Your task to perform on an android device: check out phone information Image 0: 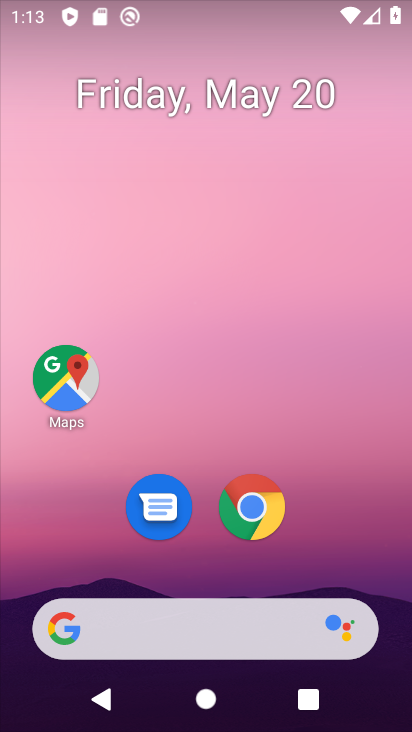
Step 0: drag from (201, 725) to (201, 52)
Your task to perform on an android device: check out phone information Image 1: 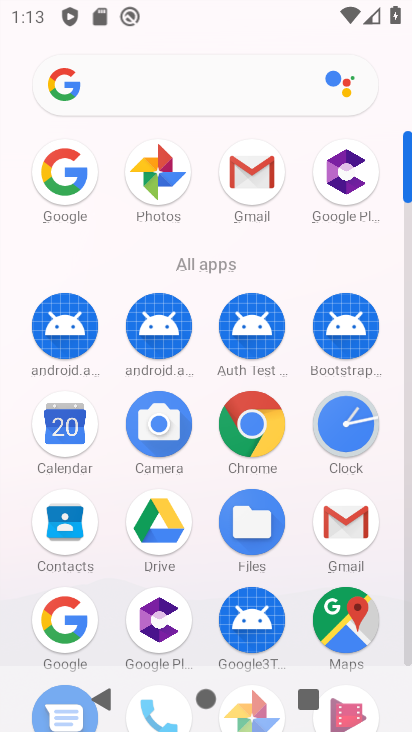
Step 1: drag from (189, 651) to (196, 201)
Your task to perform on an android device: check out phone information Image 2: 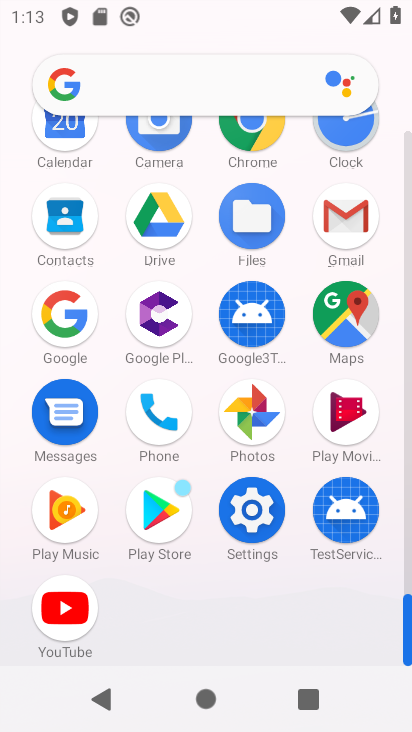
Step 2: click (260, 502)
Your task to perform on an android device: check out phone information Image 3: 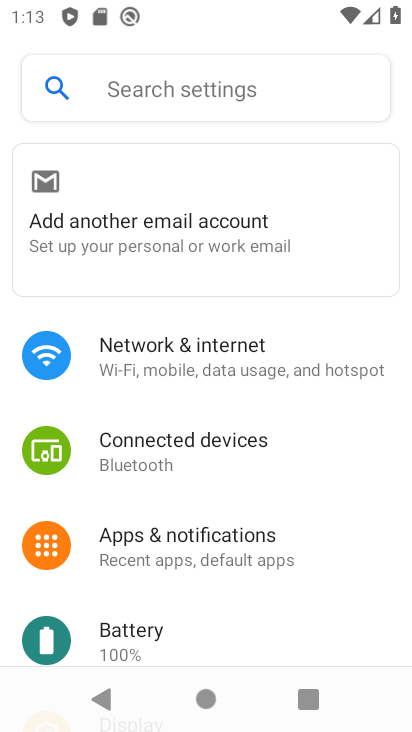
Step 3: drag from (236, 654) to (244, 278)
Your task to perform on an android device: check out phone information Image 4: 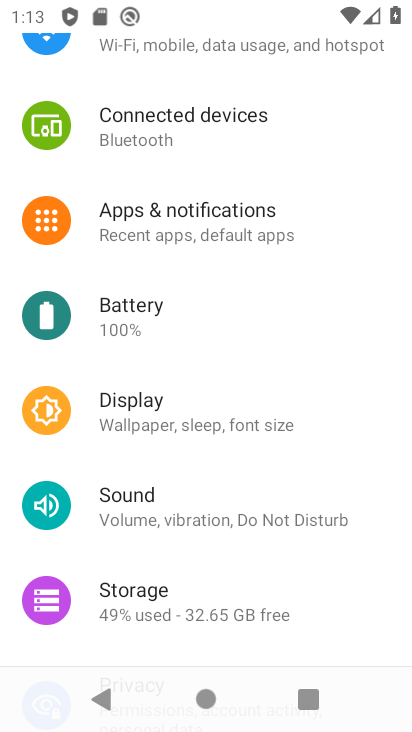
Step 4: drag from (235, 632) to (237, 184)
Your task to perform on an android device: check out phone information Image 5: 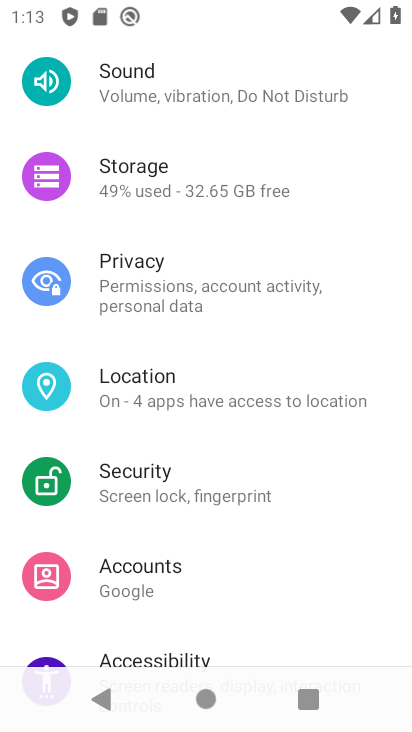
Step 5: drag from (237, 624) to (249, 169)
Your task to perform on an android device: check out phone information Image 6: 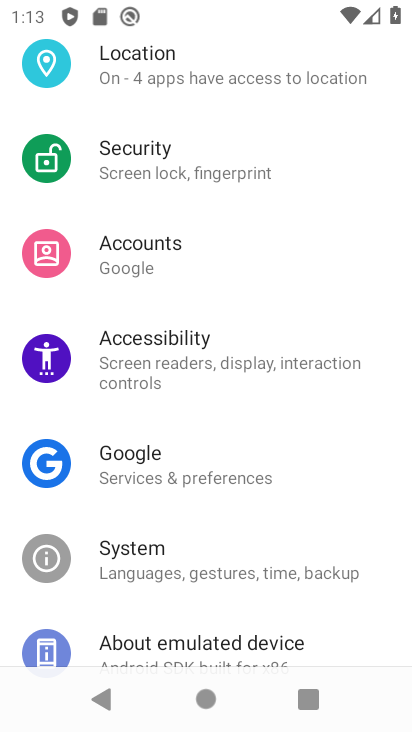
Step 6: drag from (240, 609) to (247, 257)
Your task to perform on an android device: check out phone information Image 7: 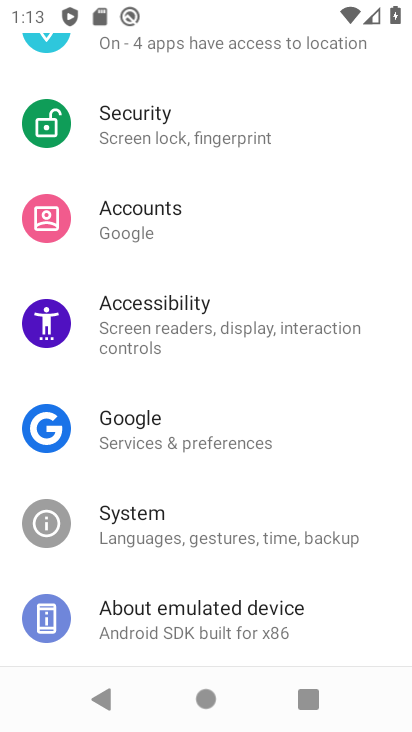
Step 7: click (212, 616)
Your task to perform on an android device: check out phone information Image 8: 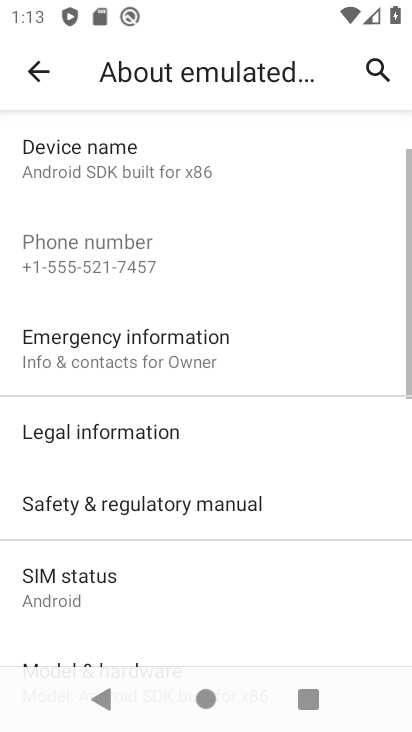
Step 8: task complete